Your task to perform on an android device: Go to privacy settings Image 0: 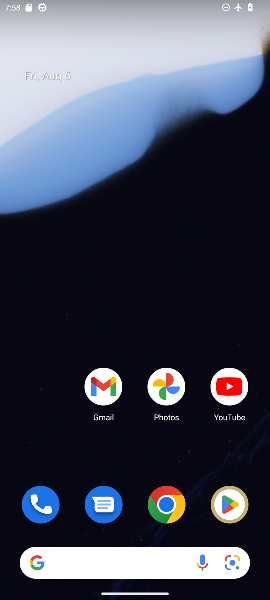
Step 0: drag from (138, 544) to (133, 2)
Your task to perform on an android device: Go to privacy settings Image 1: 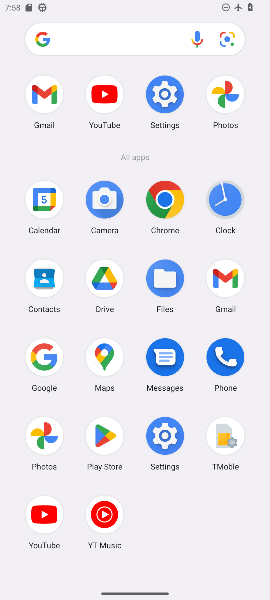
Step 1: click (171, 444)
Your task to perform on an android device: Go to privacy settings Image 2: 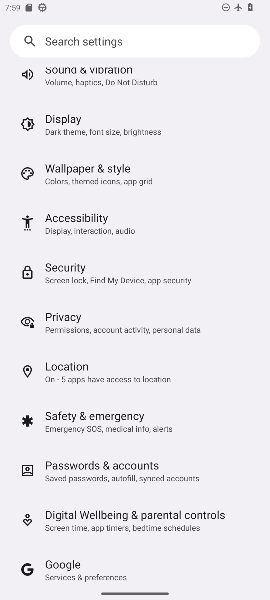
Step 2: drag from (92, 114) to (89, 469)
Your task to perform on an android device: Go to privacy settings Image 3: 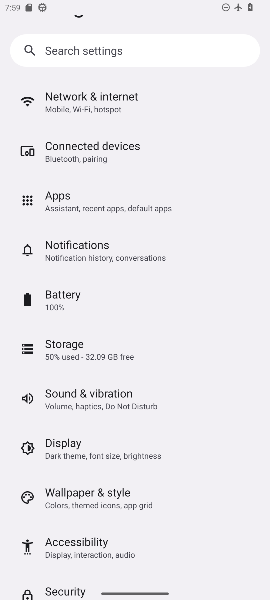
Step 3: drag from (105, 500) to (46, 16)
Your task to perform on an android device: Go to privacy settings Image 4: 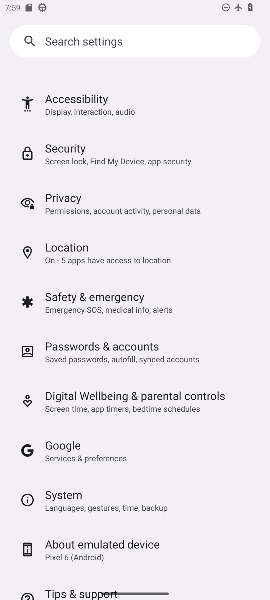
Step 4: drag from (100, 486) to (96, 191)
Your task to perform on an android device: Go to privacy settings Image 5: 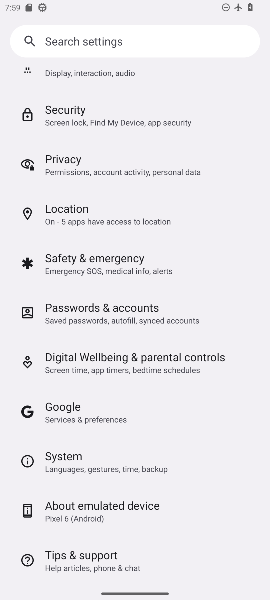
Step 5: click (73, 164)
Your task to perform on an android device: Go to privacy settings Image 6: 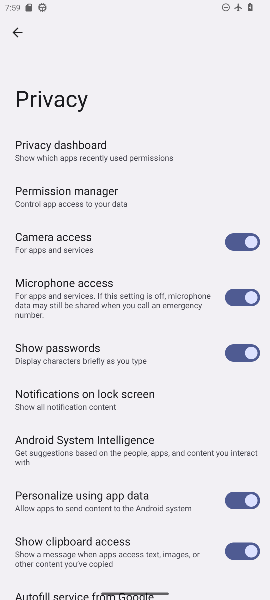
Step 6: task complete